Your task to perform on an android device: change the clock style Image 0: 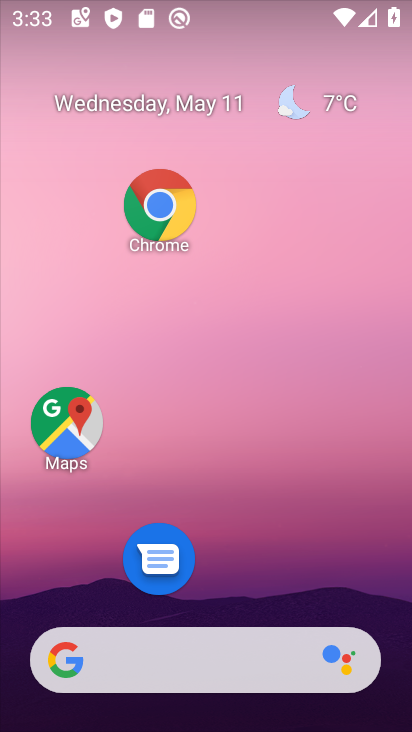
Step 0: drag from (261, 634) to (242, 153)
Your task to perform on an android device: change the clock style Image 1: 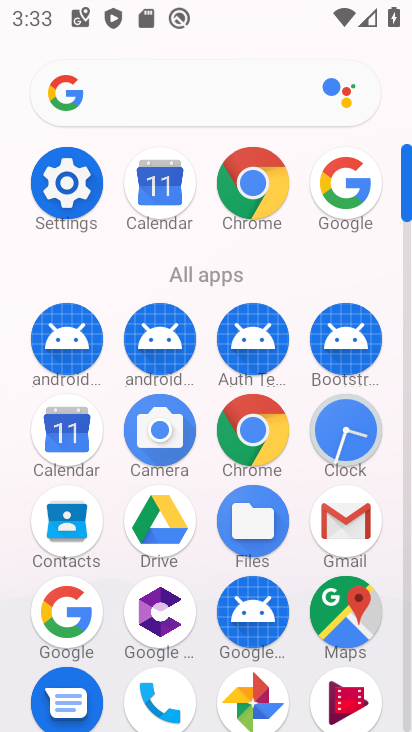
Step 1: click (344, 432)
Your task to perform on an android device: change the clock style Image 2: 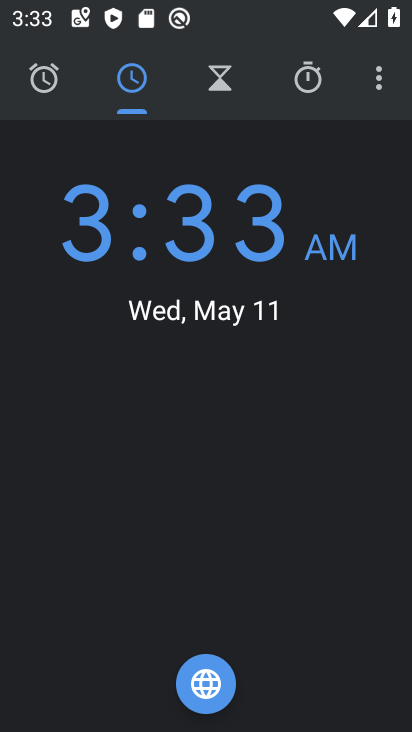
Step 2: click (386, 83)
Your task to perform on an android device: change the clock style Image 3: 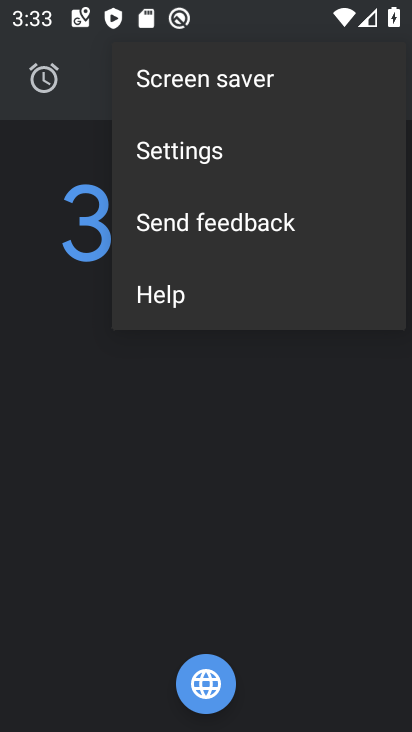
Step 3: click (203, 154)
Your task to perform on an android device: change the clock style Image 4: 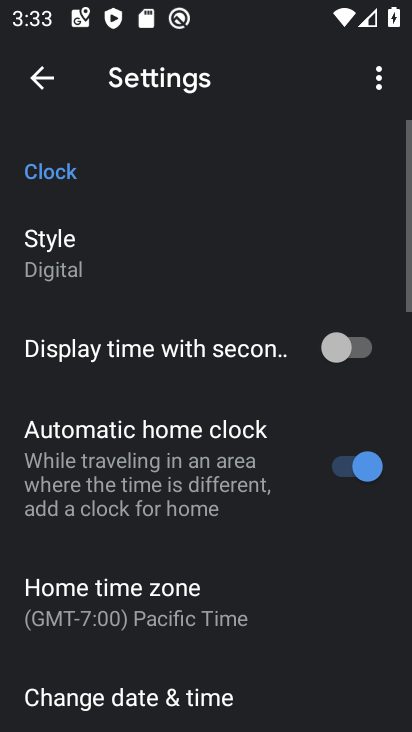
Step 4: click (68, 263)
Your task to perform on an android device: change the clock style Image 5: 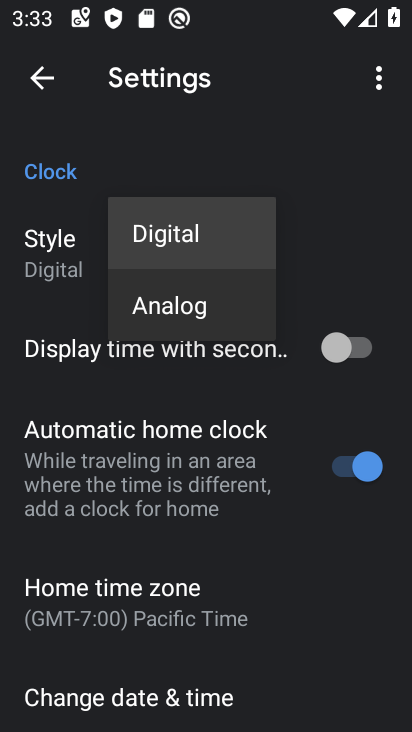
Step 5: click (195, 308)
Your task to perform on an android device: change the clock style Image 6: 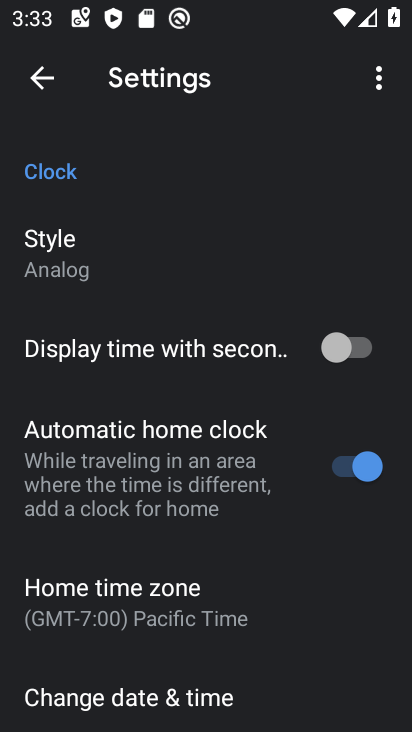
Step 6: task complete